Your task to perform on an android device: turn off picture-in-picture Image 0: 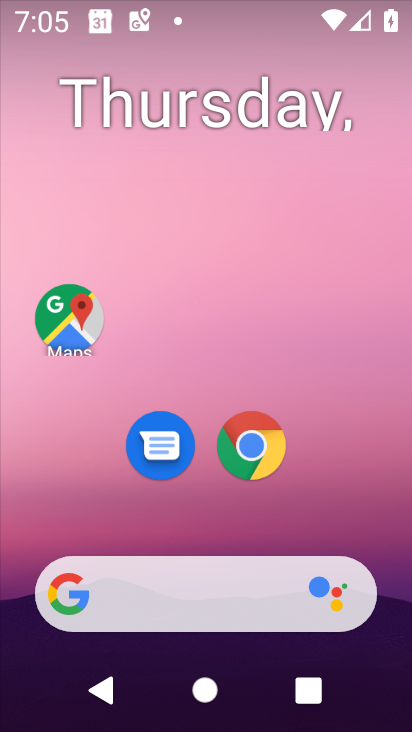
Step 0: drag from (379, 640) to (333, 31)
Your task to perform on an android device: turn off picture-in-picture Image 1: 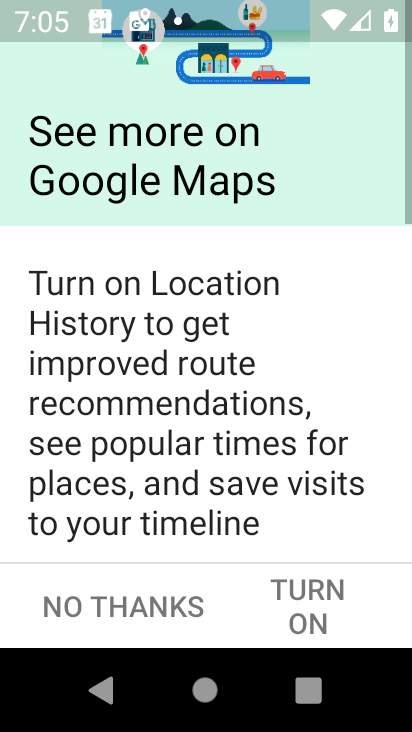
Step 1: press home button
Your task to perform on an android device: turn off picture-in-picture Image 2: 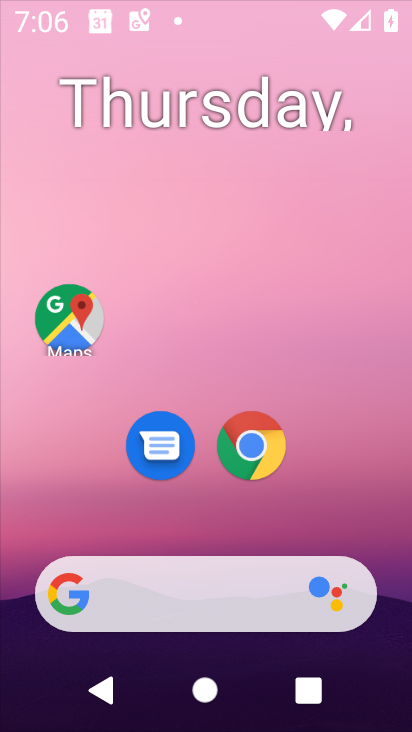
Step 2: drag from (354, 642) to (377, 27)
Your task to perform on an android device: turn off picture-in-picture Image 3: 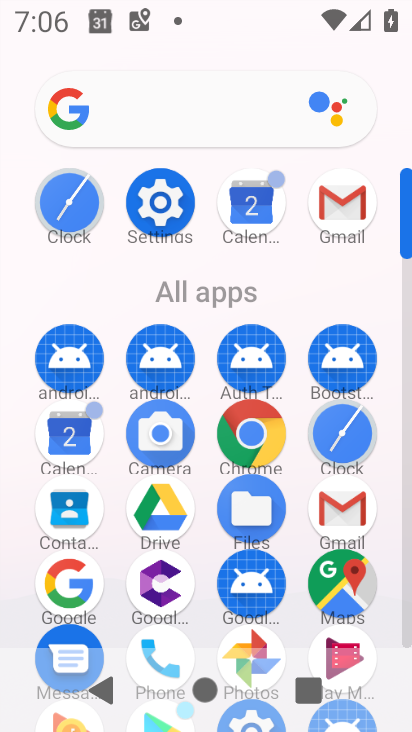
Step 3: click (232, 460)
Your task to perform on an android device: turn off picture-in-picture Image 4: 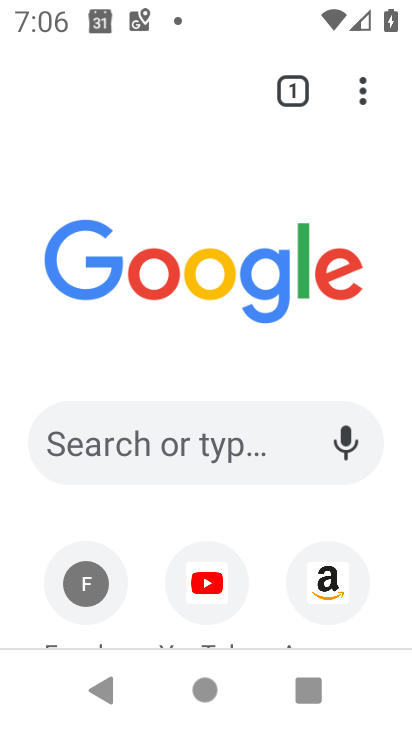
Step 4: task complete